Your task to perform on an android device: turn off wifi Image 0: 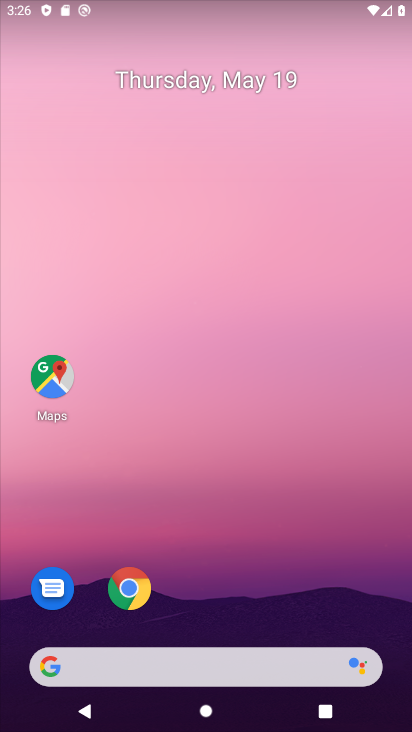
Step 0: drag from (270, 688) to (250, 165)
Your task to perform on an android device: turn off wifi Image 1: 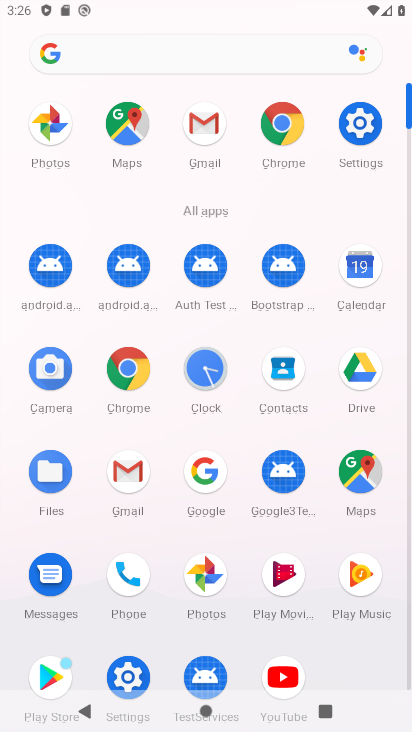
Step 1: click (347, 150)
Your task to perform on an android device: turn off wifi Image 2: 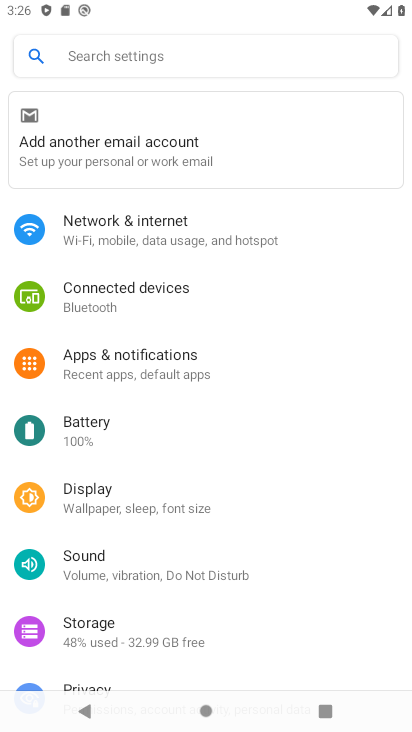
Step 2: click (185, 261)
Your task to perform on an android device: turn off wifi Image 3: 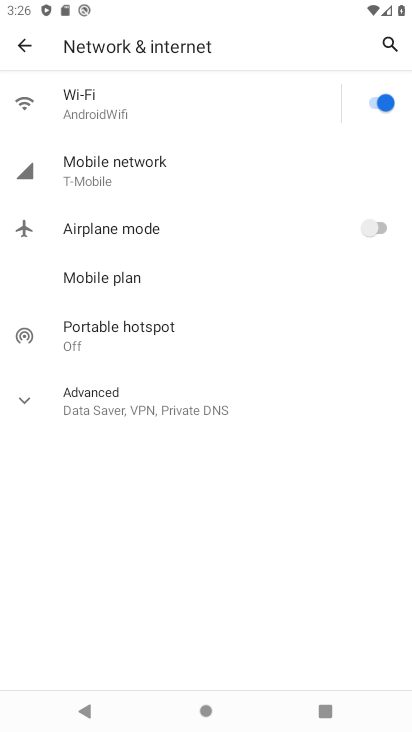
Step 3: click (116, 111)
Your task to perform on an android device: turn off wifi Image 4: 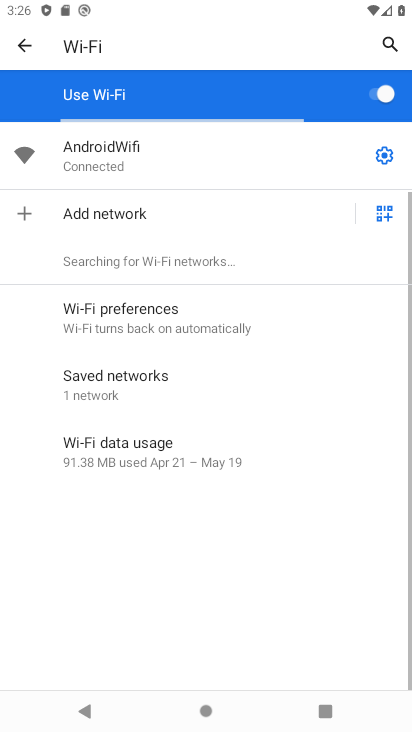
Step 4: click (376, 87)
Your task to perform on an android device: turn off wifi Image 5: 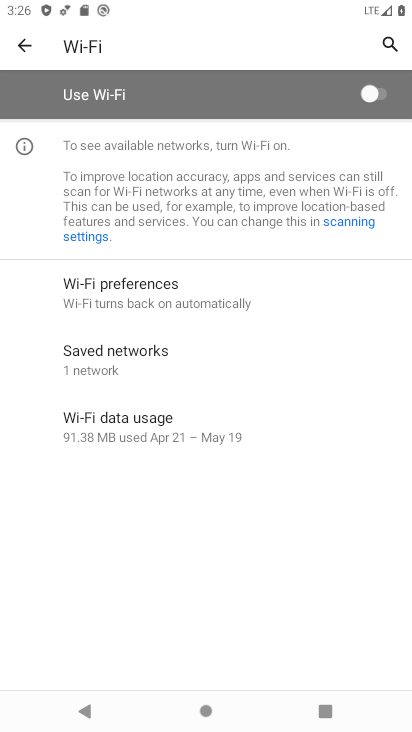
Step 5: task complete